Your task to perform on an android device: Open settings on Google Maps Image 0: 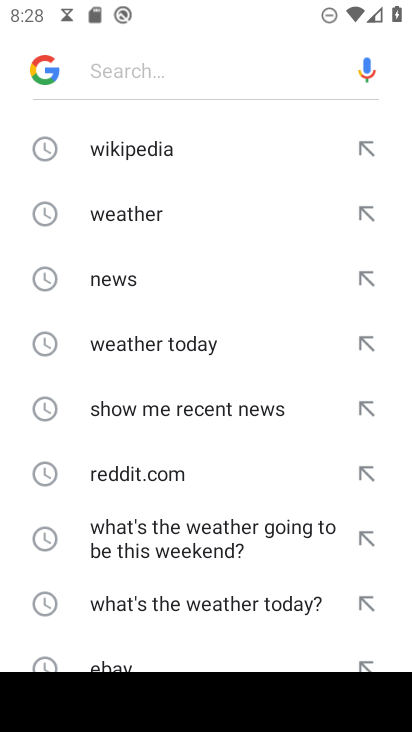
Step 0: press home button
Your task to perform on an android device: Open settings on Google Maps Image 1: 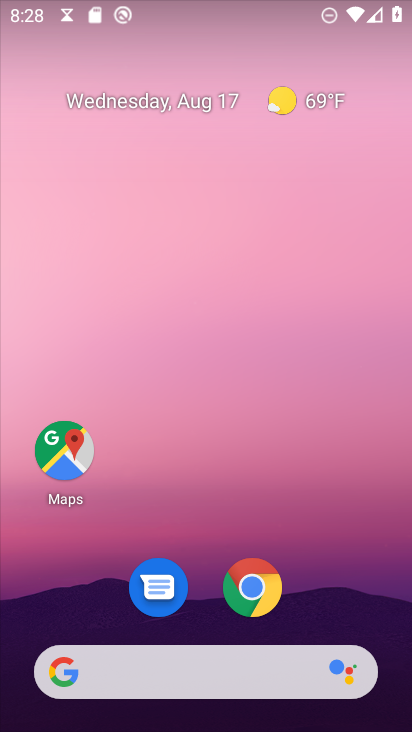
Step 1: click (57, 452)
Your task to perform on an android device: Open settings on Google Maps Image 2: 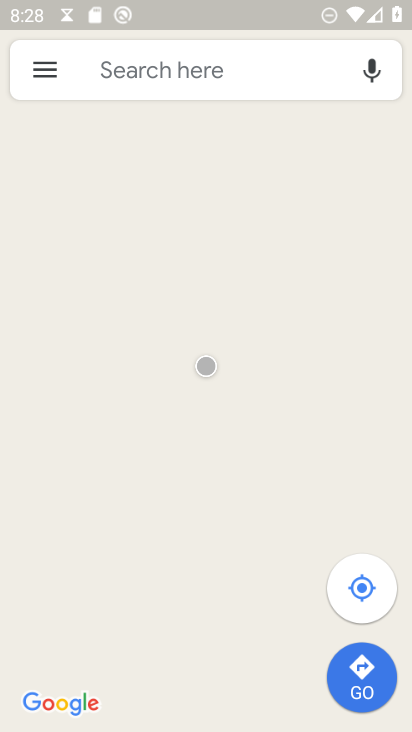
Step 2: click (43, 73)
Your task to perform on an android device: Open settings on Google Maps Image 3: 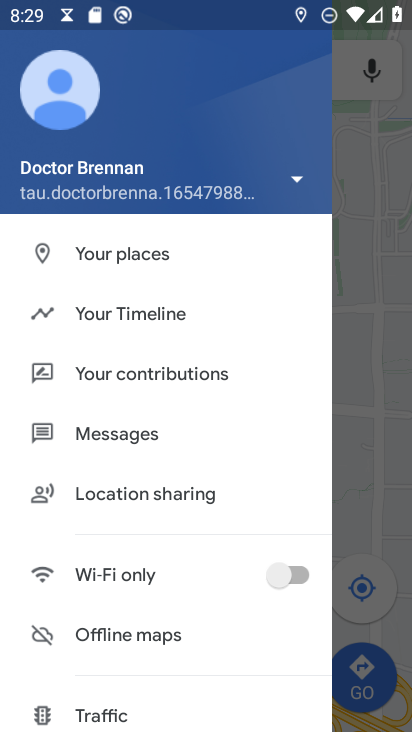
Step 3: drag from (247, 556) to (226, 398)
Your task to perform on an android device: Open settings on Google Maps Image 4: 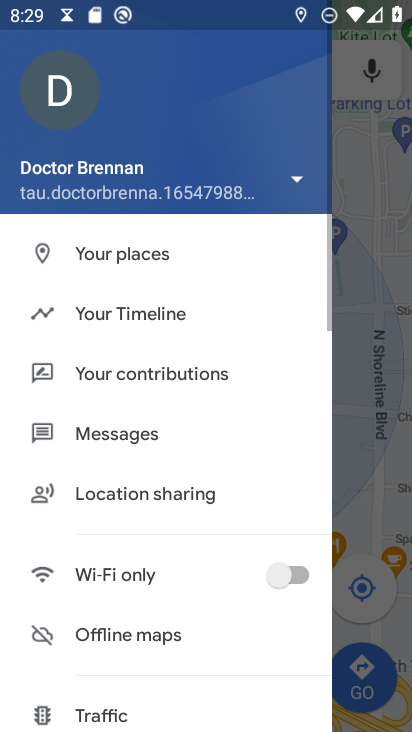
Step 4: drag from (216, 709) to (149, 254)
Your task to perform on an android device: Open settings on Google Maps Image 5: 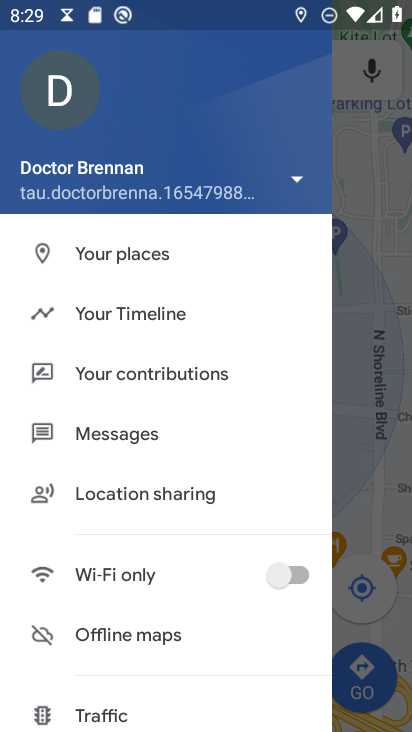
Step 5: drag from (222, 690) to (238, 349)
Your task to perform on an android device: Open settings on Google Maps Image 6: 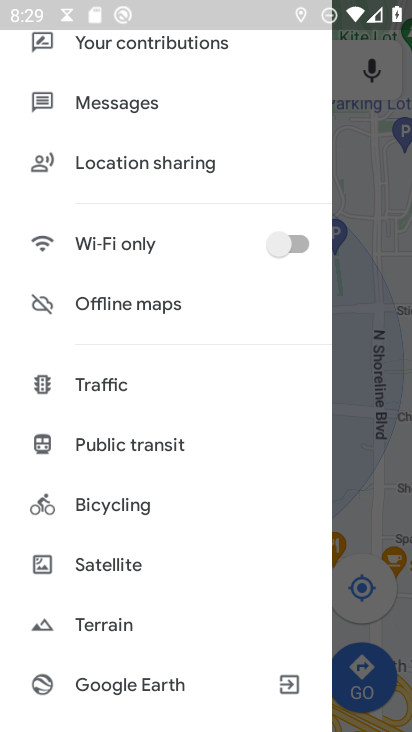
Step 6: drag from (235, 706) to (140, 499)
Your task to perform on an android device: Open settings on Google Maps Image 7: 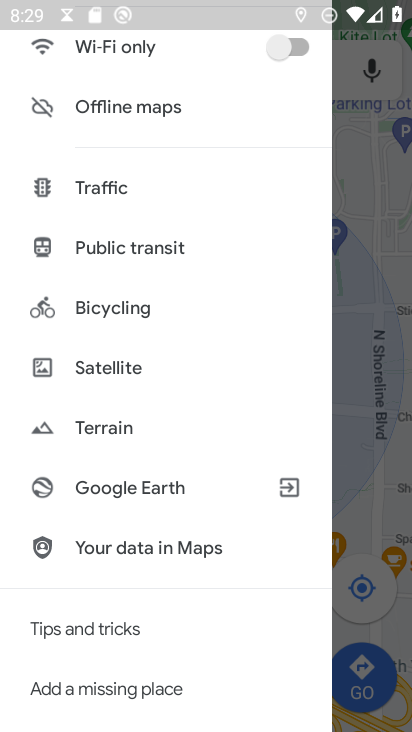
Step 7: drag from (231, 688) to (175, 312)
Your task to perform on an android device: Open settings on Google Maps Image 8: 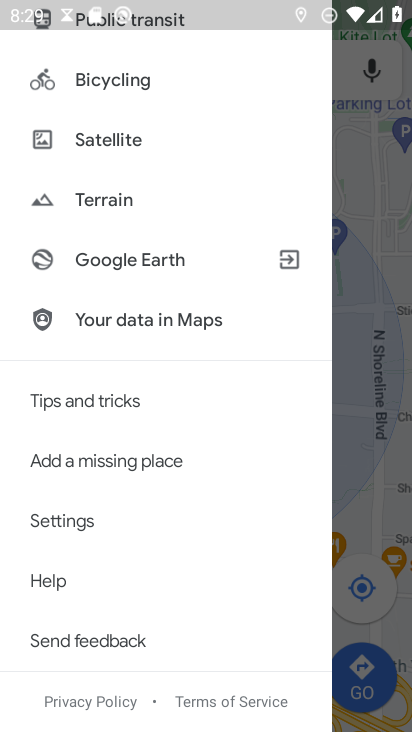
Step 8: click (90, 524)
Your task to perform on an android device: Open settings on Google Maps Image 9: 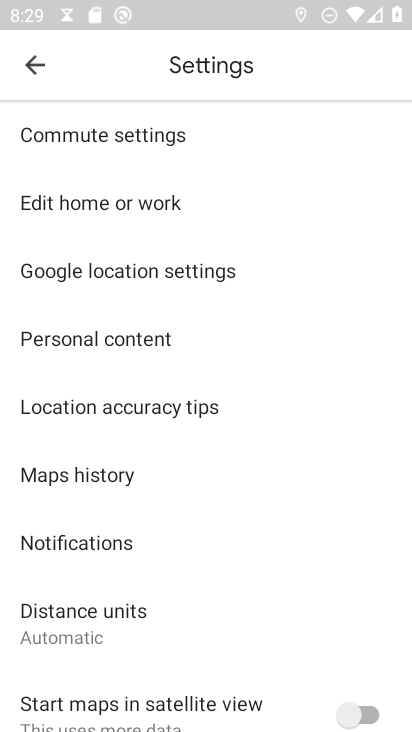
Step 9: task complete